Your task to perform on an android device: turn off data saver in the chrome app Image 0: 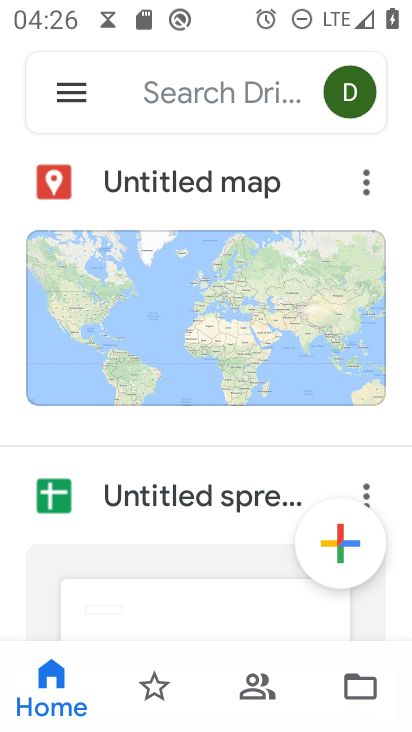
Step 0: press home button
Your task to perform on an android device: turn off data saver in the chrome app Image 1: 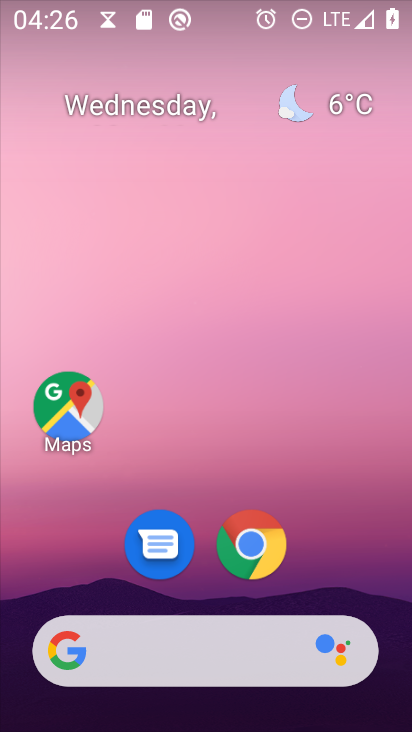
Step 1: click (242, 559)
Your task to perform on an android device: turn off data saver in the chrome app Image 2: 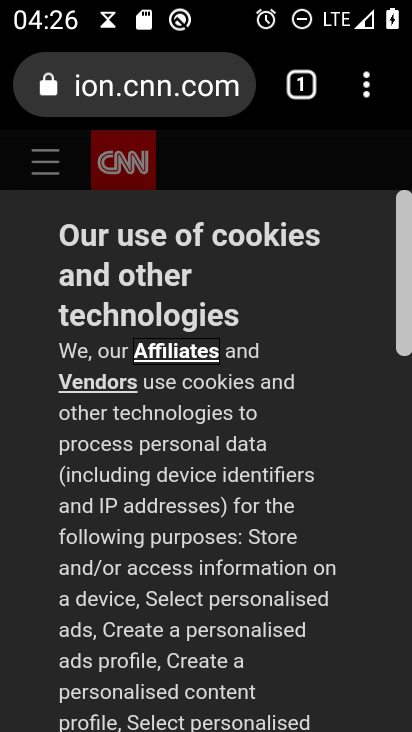
Step 2: click (372, 86)
Your task to perform on an android device: turn off data saver in the chrome app Image 3: 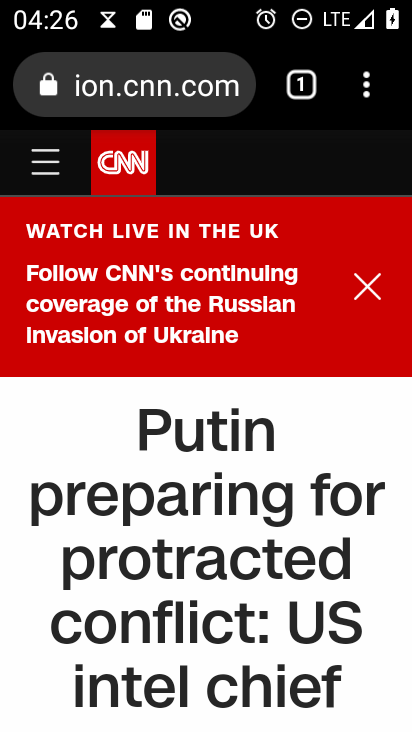
Step 3: click (361, 98)
Your task to perform on an android device: turn off data saver in the chrome app Image 4: 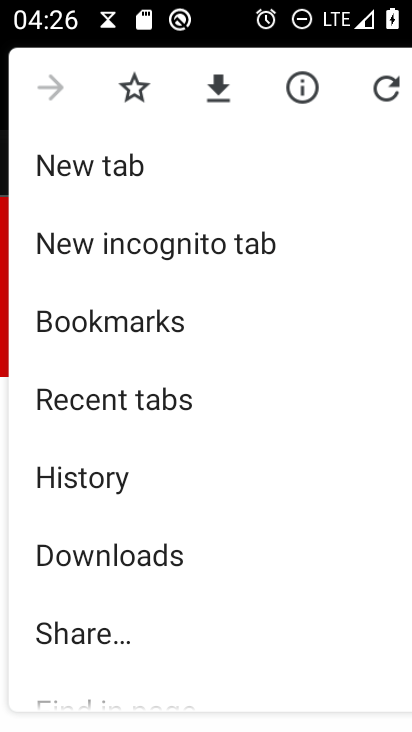
Step 4: drag from (161, 693) to (175, 469)
Your task to perform on an android device: turn off data saver in the chrome app Image 5: 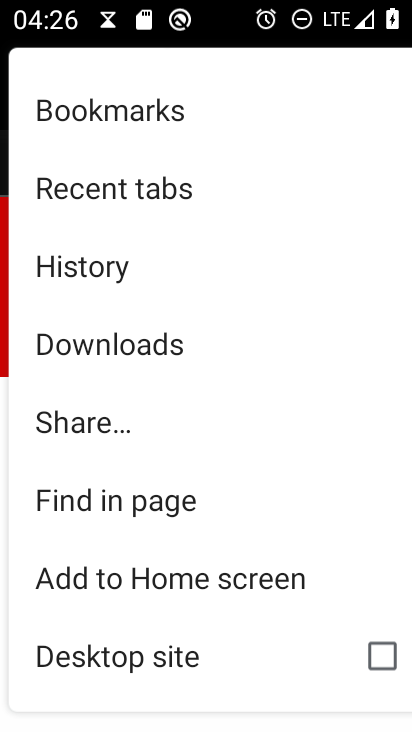
Step 5: drag from (173, 634) to (170, 366)
Your task to perform on an android device: turn off data saver in the chrome app Image 6: 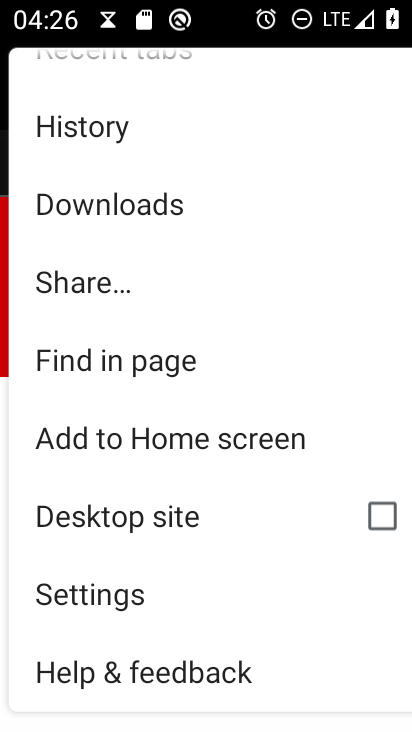
Step 6: click (153, 585)
Your task to perform on an android device: turn off data saver in the chrome app Image 7: 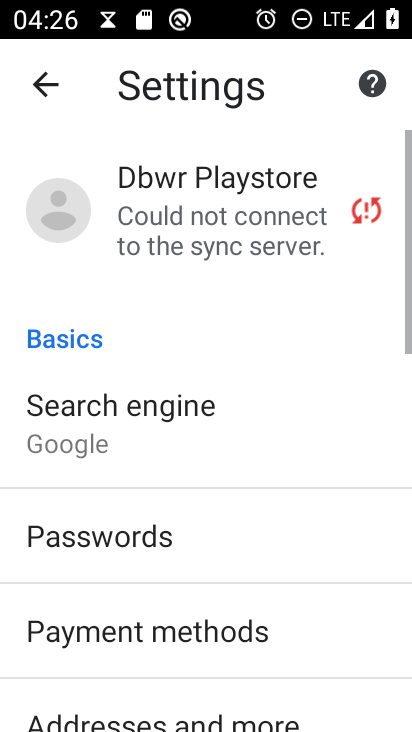
Step 7: drag from (149, 650) to (170, 380)
Your task to perform on an android device: turn off data saver in the chrome app Image 8: 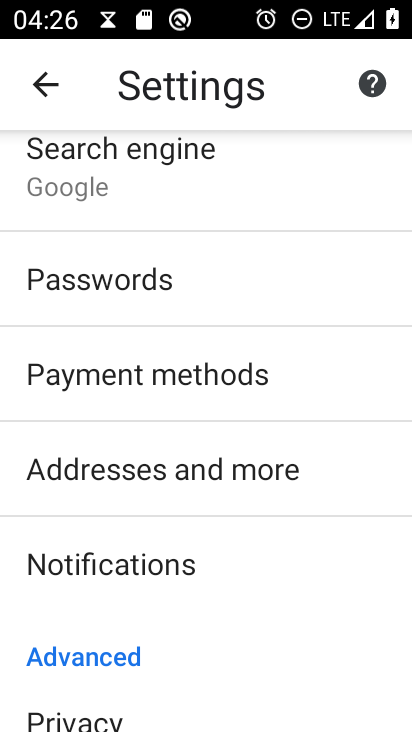
Step 8: drag from (116, 688) to (151, 376)
Your task to perform on an android device: turn off data saver in the chrome app Image 9: 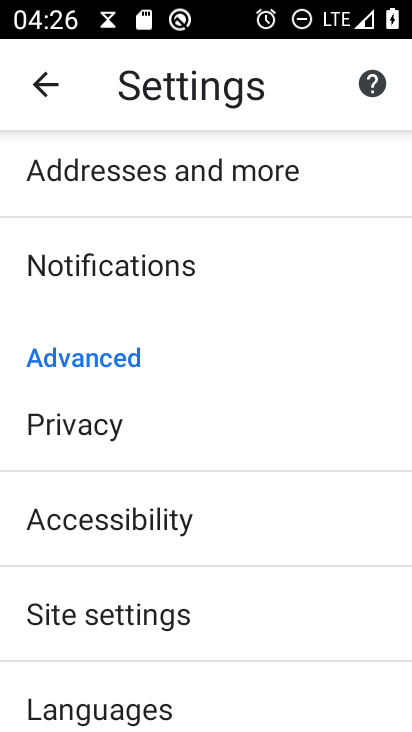
Step 9: drag from (124, 663) to (115, 337)
Your task to perform on an android device: turn off data saver in the chrome app Image 10: 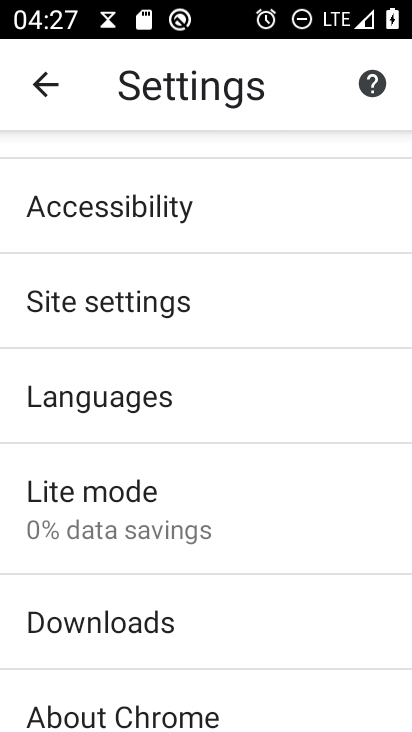
Step 10: click (122, 540)
Your task to perform on an android device: turn off data saver in the chrome app Image 11: 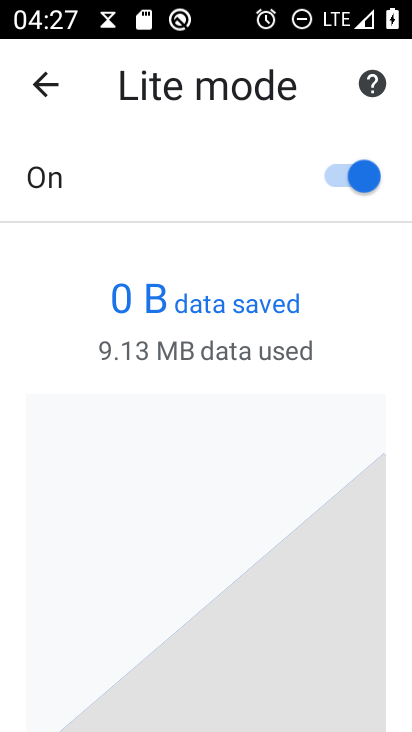
Step 11: click (359, 187)
Your task to perform on an android device: turn off data saver in the chrome app Image 12: 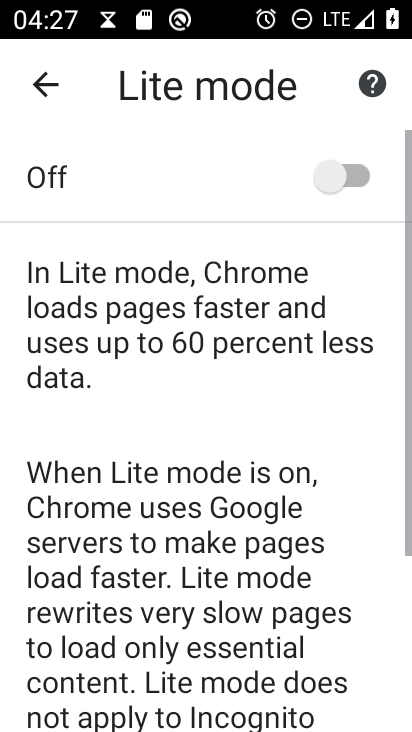
Step 12: task complete